Your task to perform on an android device: open sync settings in chrome Image 0: 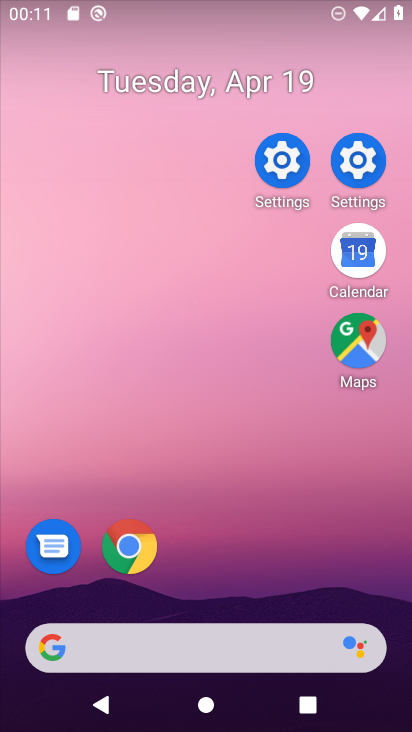
Step 0: drag from (230, 601) to (145, 178)
Your task to perform on an android device: open sync settings in chrome Image 1: 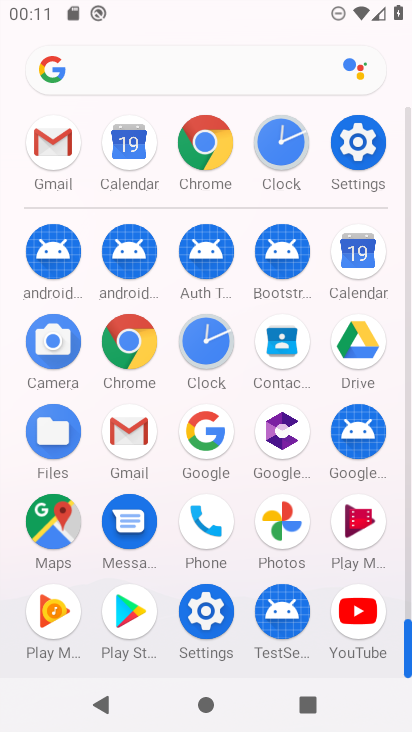
Step 1: click (199, 143)
Your task to perform on an android device: open sync settings in chrome Image 2: 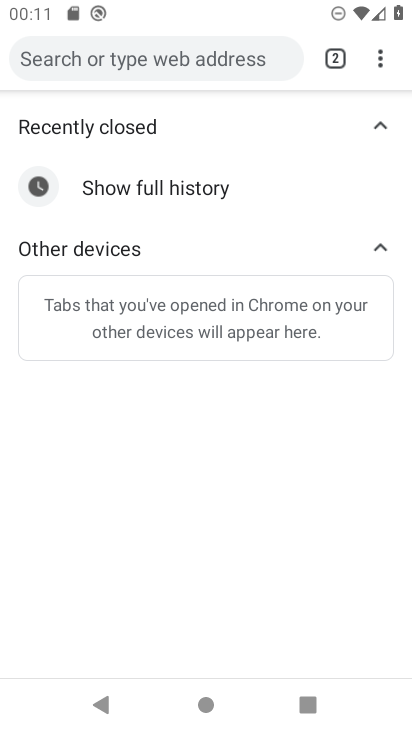
Step 2: click (380, 56)
Your task to perform on an android device: open sync settings in chrome Image 3: 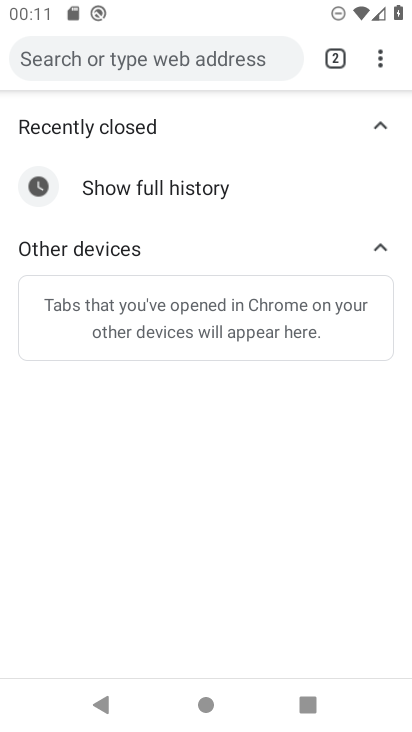
Step 3: click (380, 56)
Your task to perform on an android device: open sync settings in chrome Image 4: 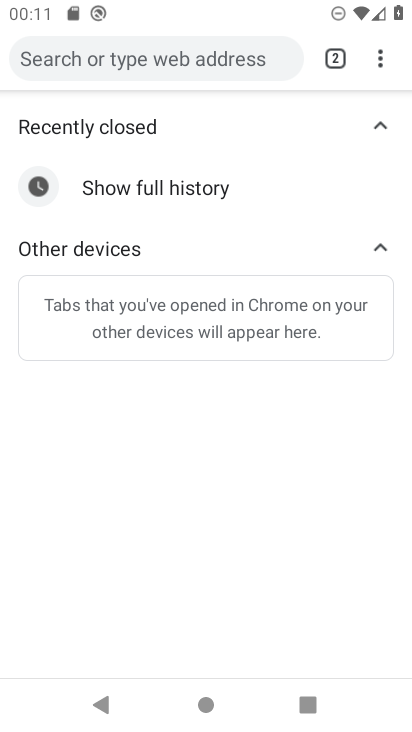
Step 4: click (380, 56)
Your task to perform on an android device: open sync settings in chrome Image 5: 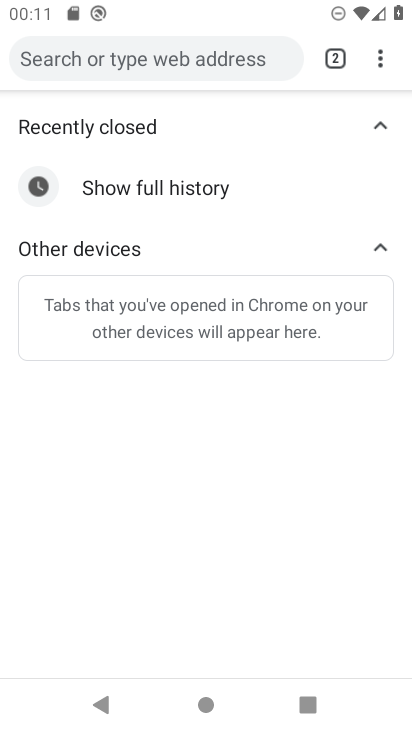
Step 5: click (380, 56)
Your task to perform on an android device: open sync settings in chrome Image 6: 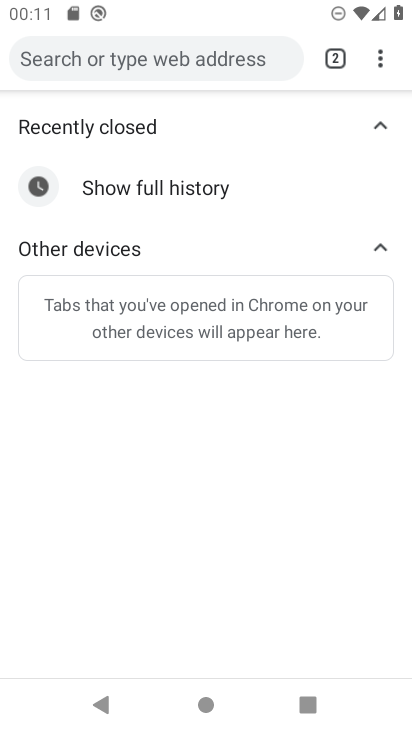
Step 6: click (380, 56)
Your task to perform on an android device: open sync settings in chrome Image 7: 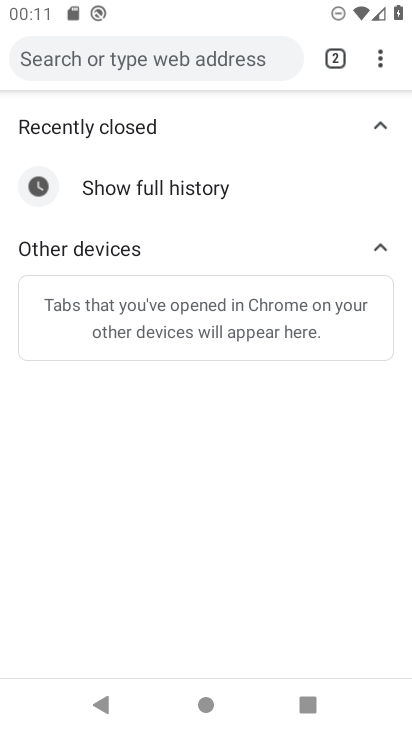
Step 7: click (380, 56)
Your task to perform on an android device: open sync settings in chrome Image 8: 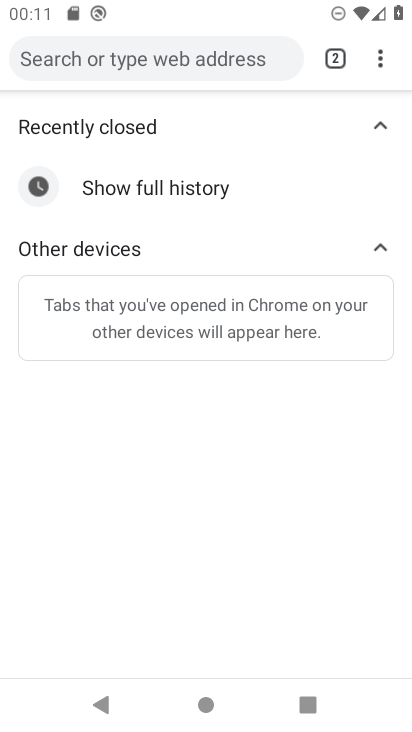
Step 8: click (380, 56)
Your task to perform on an android device: open sync settings in chrome Image 9: 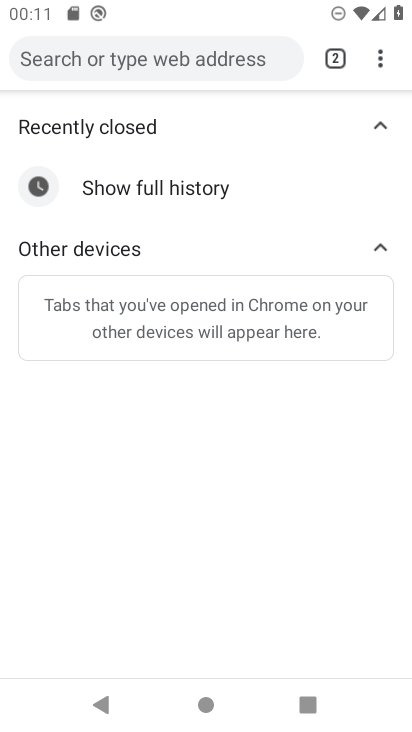
Step 9: click (380, 56)
Your task to perform on an android device: open sync settings in chrome Image 10: 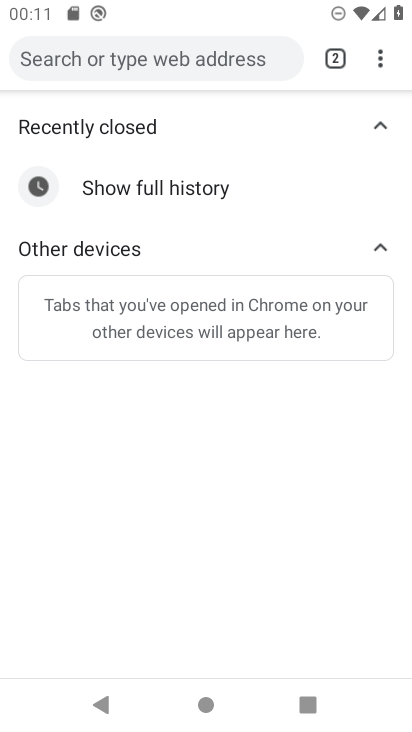
Step 10: click (380, 54)
Your task to perform on an android device: open sync settings in chrome Image 11: 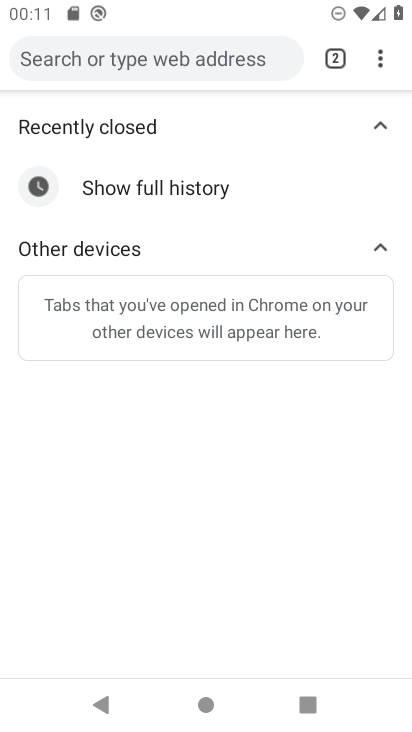
Step 11: click (380, 54)
Your task to perform on an android device: open sync settings in chrome Image 12: 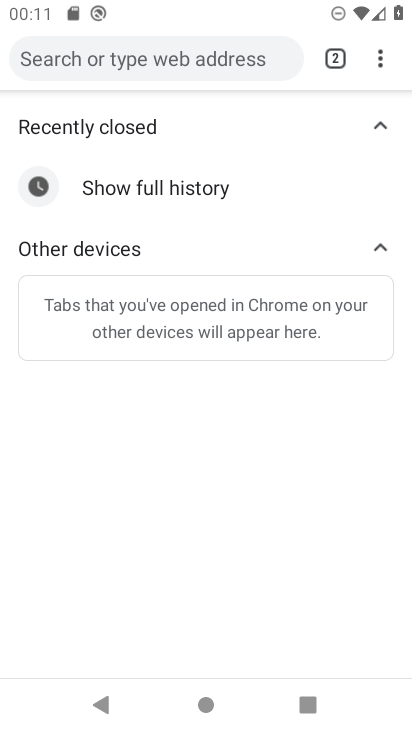
Step 12: click (380, 62)
Your task to perform on an android device: open sync settings in chrome Image 13: 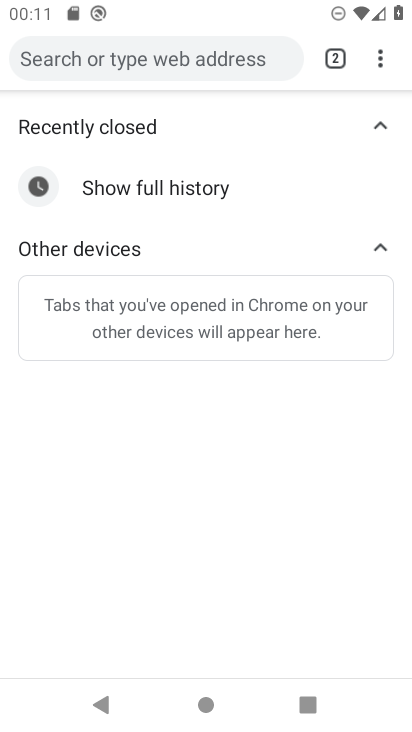
Step 13: click (379, 52)
Your task to perform on an android device: open sync settings in chrome Image 14: 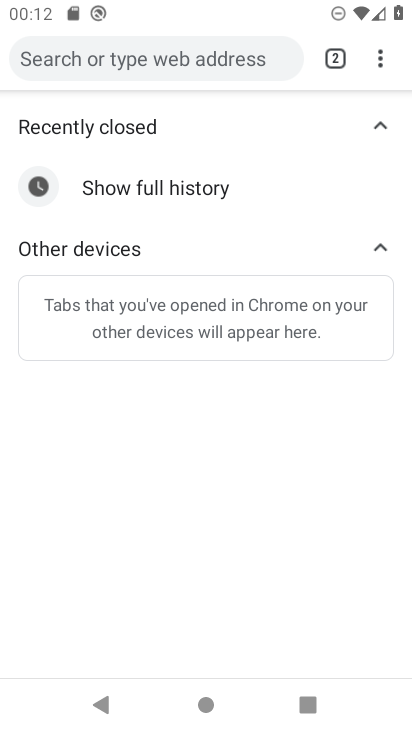
Step 14: click (377, 63)
Your task to perform on an android device: open sync settings in chrome Image 15: 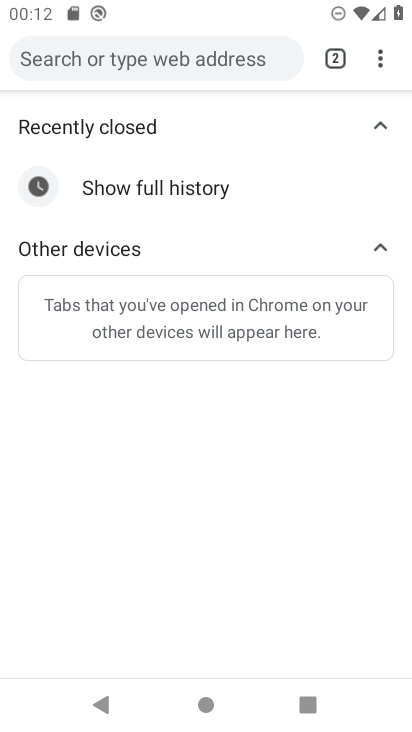
Step 15: click (377, 63)
Your task to perform on an android device: open sync settings in chrome Image 16: 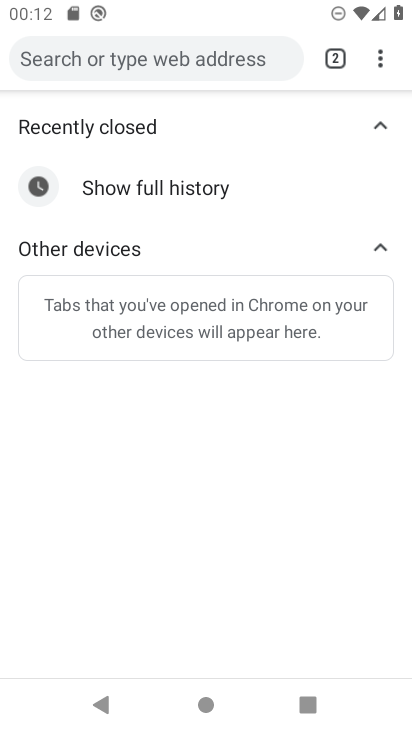
Step 16: click (389, 53)
Your task to perform on an android device: open sync settings in chrome Image 17: 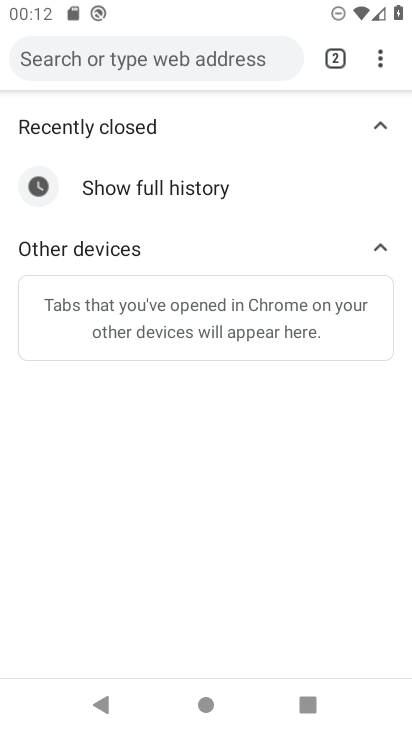
Step 17: click (373, 60)
Your task to perform on an android device: open sync settings in chrome Image 18: 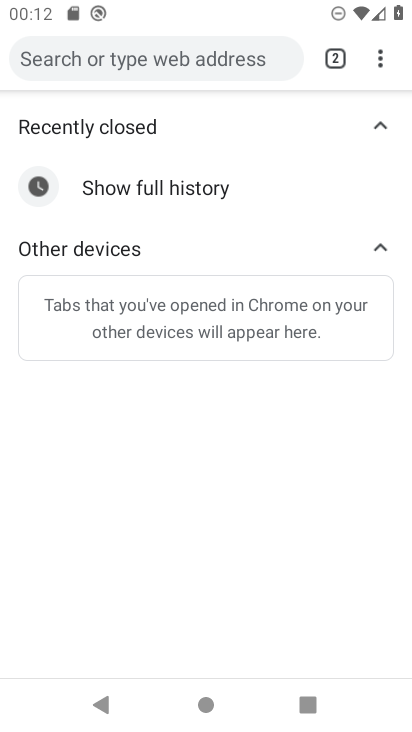
Step 18: click (382, 60)
Your task to perform on an android device: open sync settings in chrome Image 19: 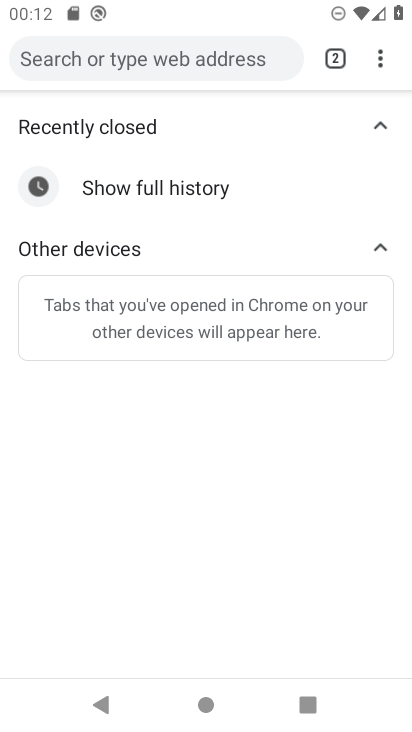
Step 19: click (380, 67)
Your task to perform on an android device: open sync settings in chrome Image 20: 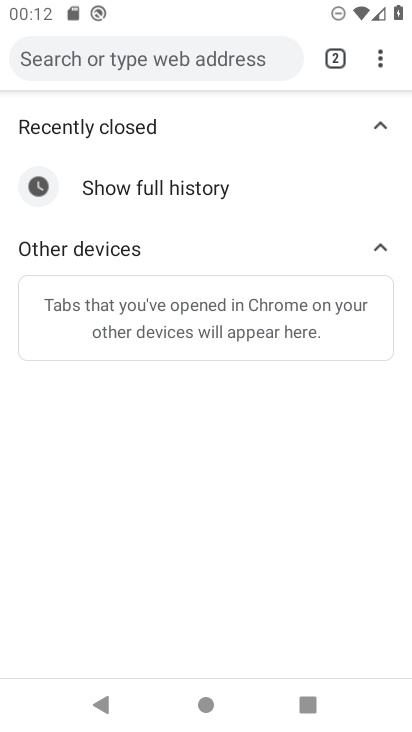
Step 20: click (380, 67)
Your task to perform on an android device: open sync settings in chrome Image 21: 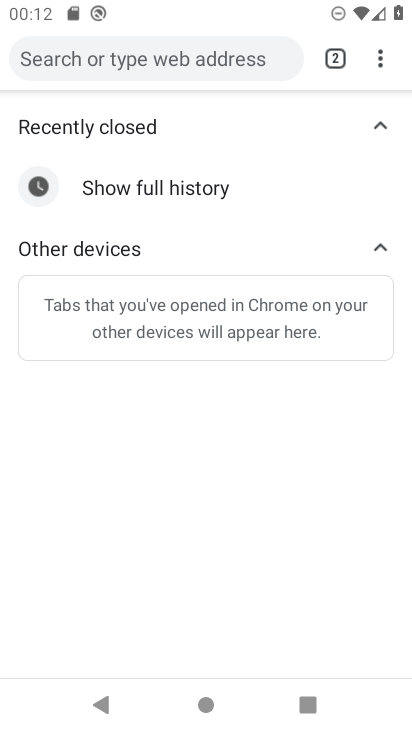
Step 21: click (383, 42)
Your task to perform on an android device: open sync settings in chrome Image 22: 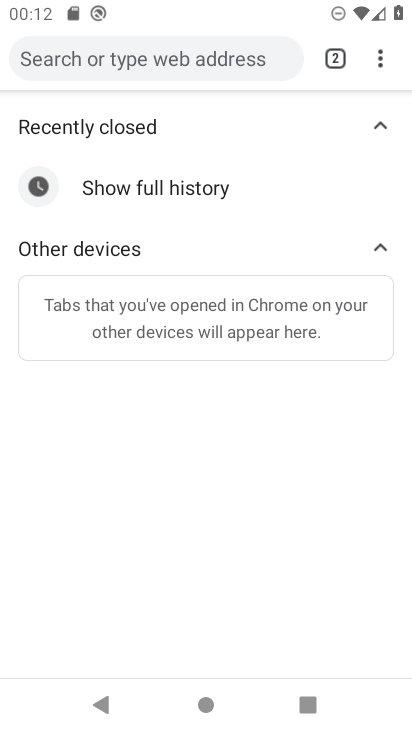
Step 22: click (375, 54)
Your task to perform on an android device: open sync settings in chrome Image 23: 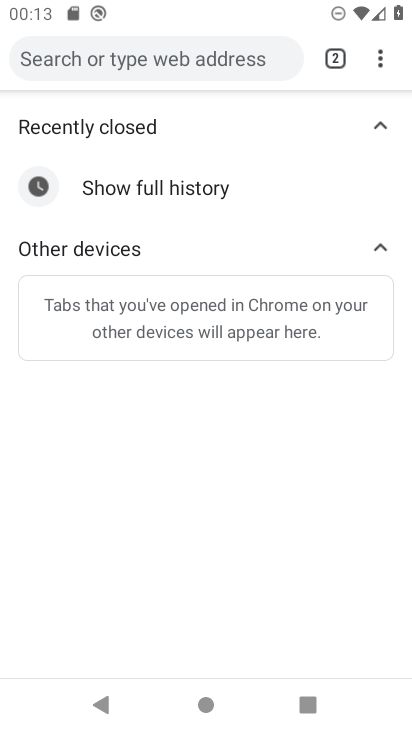
Step 23: click (375, 54)
Your task to perform on an android device: open sync settings in chrome Image 24: 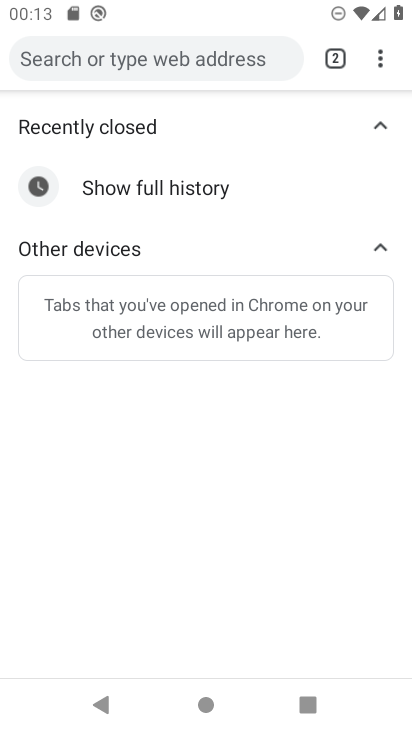
Step 24: click (381, 59)
Your task to perform on an android device: open sync settings in chrome Image 25: 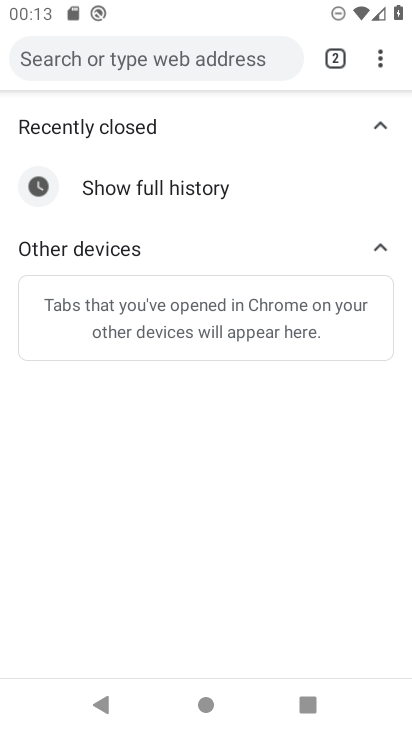
Step 25: click (382, 58)
Your task to perform on an android device: open sync settings in chrome Image 26: 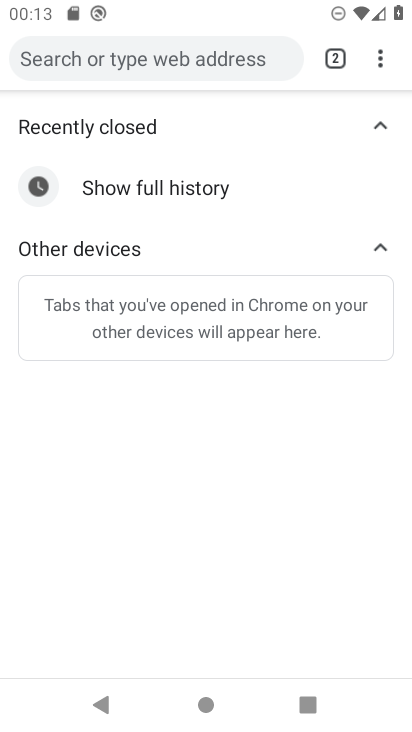
Step 26: click (382, 58)
Your task to perform on an android device: open sync settings in chrome Image 27: 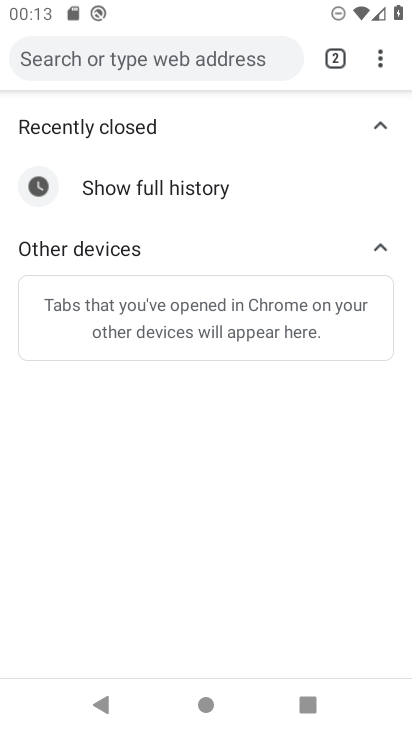
Step 27: click (382, 59)
Your task to perform on an android device: open sync settings in chrome Image 28: 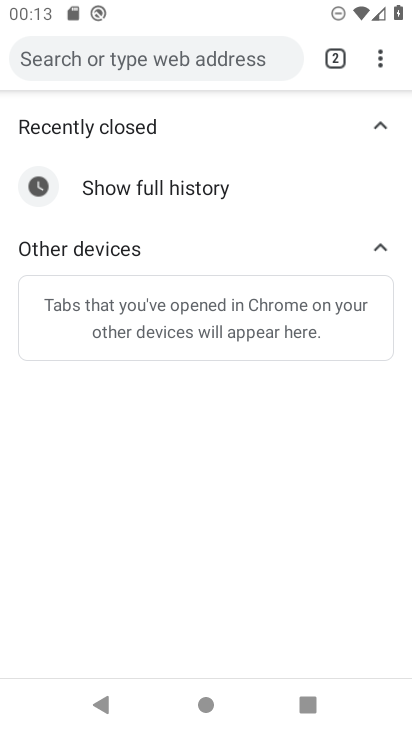
Step 28: click (377, 55)
Your task to perform on an android device: open sync settings in chrome Image 29: 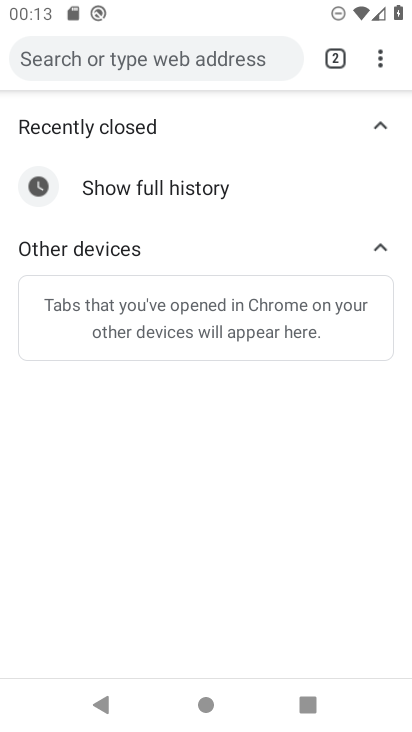
Step 29: click (383, 66)
Your task to perform on an android device: open sync settings in chrome Image 30: 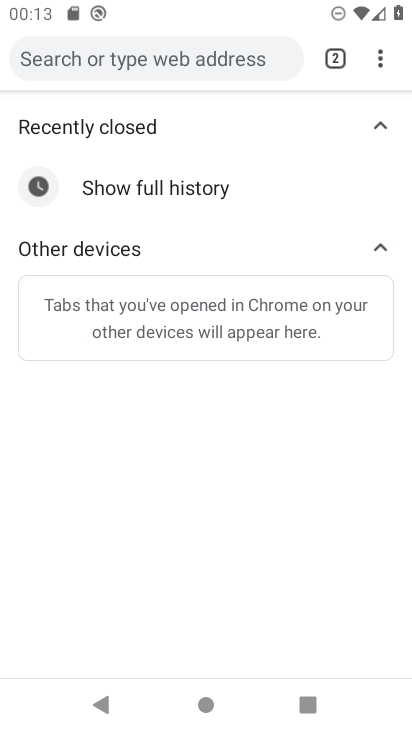
Step 30: click (383, 57)
Your task to perform on an android device: open sync settings in chrome Image 31: 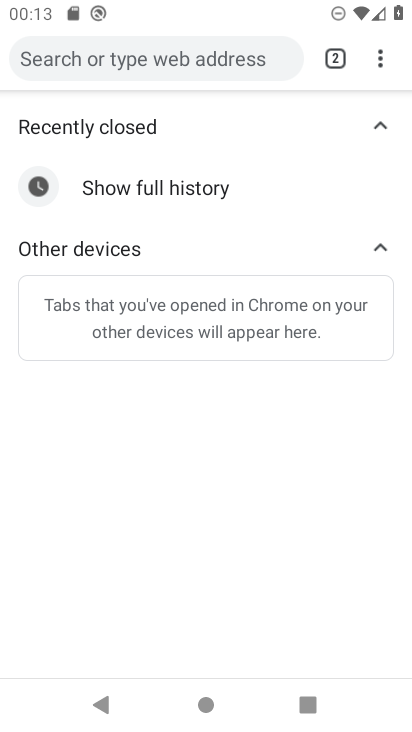
Step 31: click (380, 53)
Your task to perform on an android device: open sync settings in chrome Image 32: 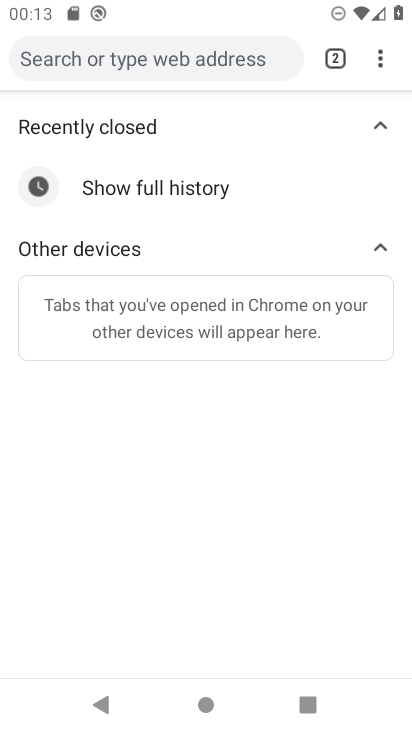
Step 32: click (380, 53)
Your task to perform on an android device: open sync settings in chrome Image 33: 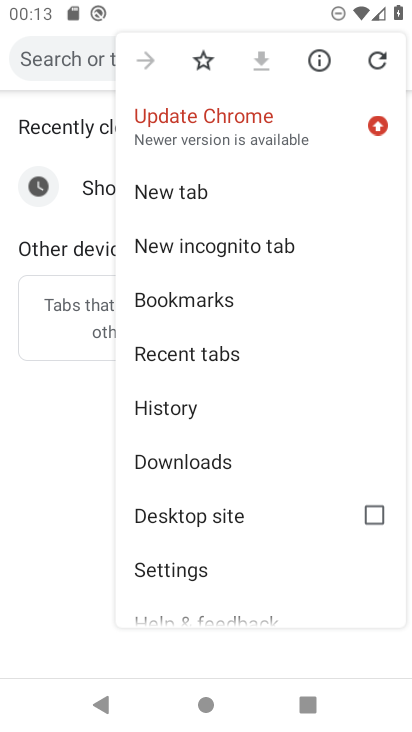
Step 33: click (154, 565)
Your task to perform on an android device: open sync settings in chrome Image 34: 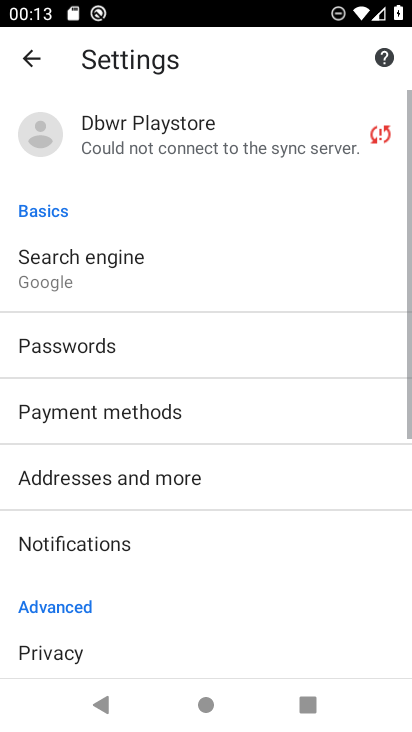
Step 34: drag from (198, 523) to (93, 142)
Your task to perform on an android device: open sync settings in chrome Image 35: 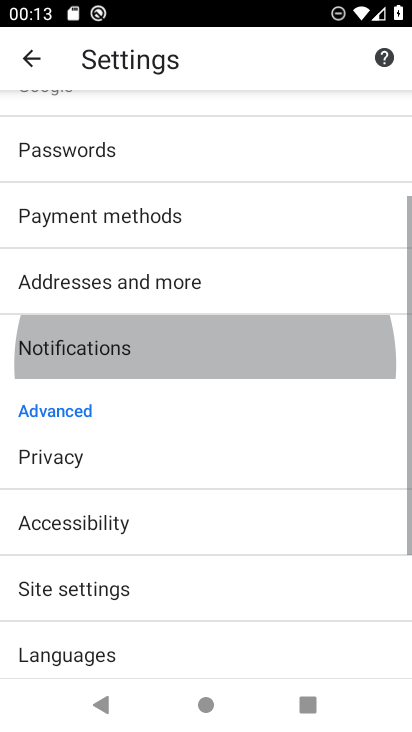
Step 35: drag from (130, 594) to (124, 171)
Your task to perform on an android device: open sync settings in chrome Image 36: 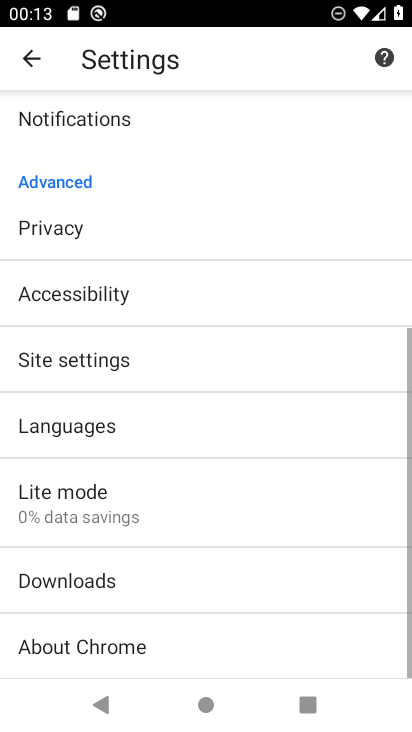
Step 36: click (77, 349)
Your task to perform on an android device: open sync settings in chrome Image 37: 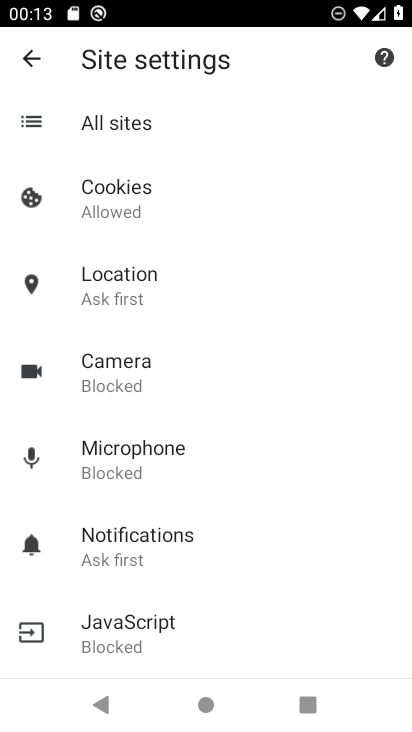
Step 37: drag from (200, 484) to (211, 209)
Your task to perform on an android device: open sync settings in chrome Image 38: 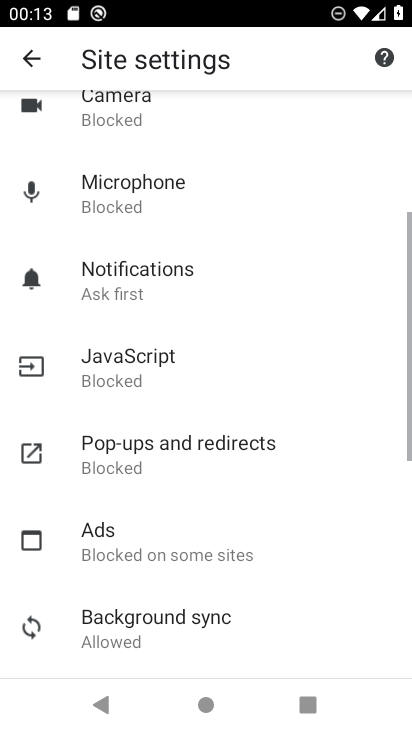
Step 38: drag from (205, 611) to (254, 223)
Your task to perform on an android device: open sync settings in chrome Image 39: 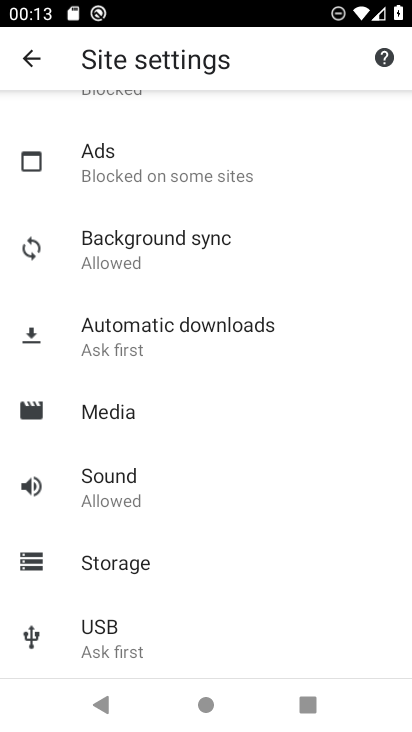
Step 39: click (112, 243)
Your task to perform on an android device: open sync settings in chrome Image 40: 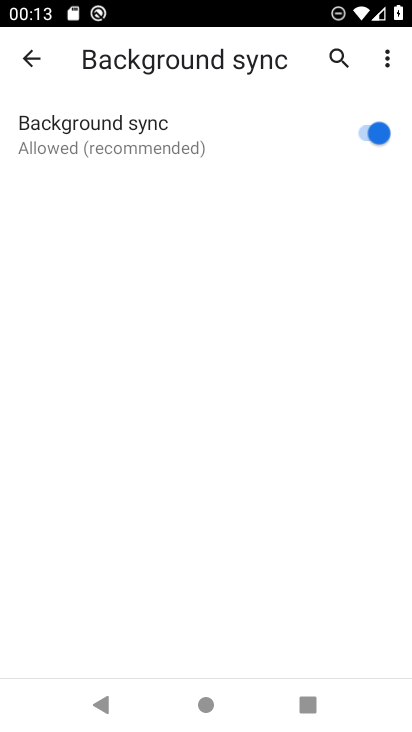
Step 40: task complete